Your task to perform on an android device: check storage Image 0: 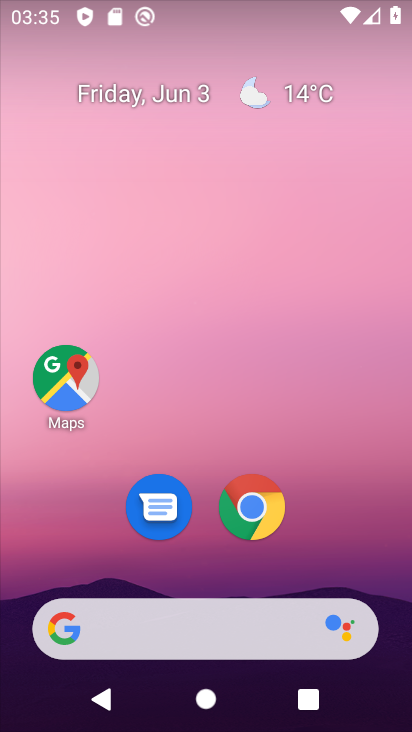
Step 0: drag from (251, 137) to (283, 124)
Your task to perform on an android device: check storage Image 1: 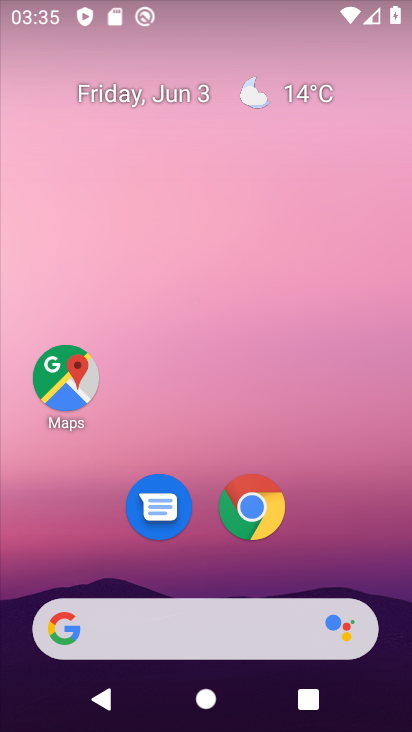
Step 1: drag from (231, 556) to (258, 8)
Your task to perform on an android device: check storage Image 2: 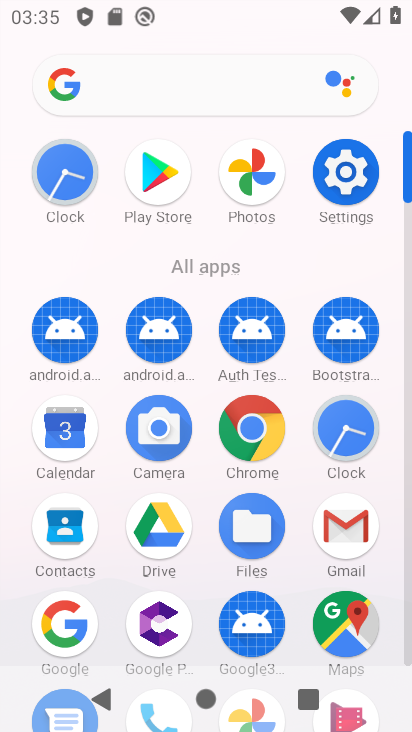
Step 2: click (347, 179)
Your task to perform on an android device: check storage Image 3: 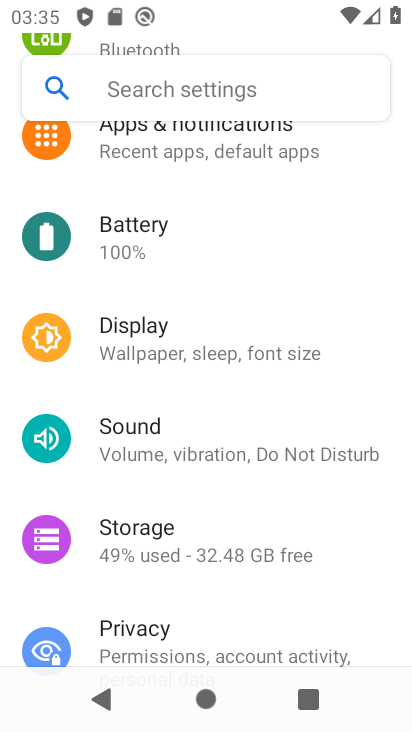
Step 3: click (163, 537)
Your task to perform on an android device: check storage Image 4: 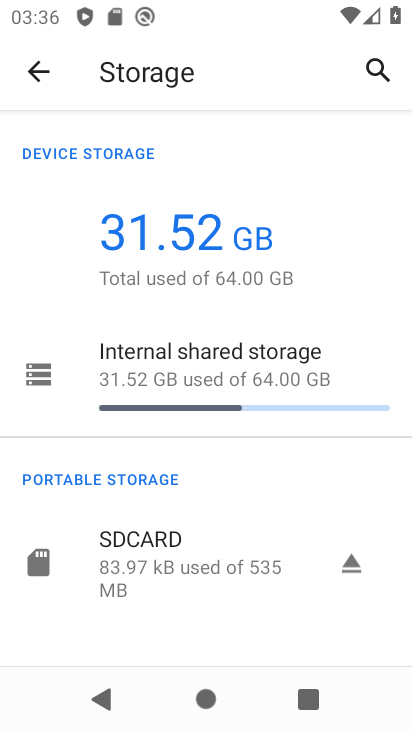
Step 4: task complete